Your task to perform on an android device: What's the weather like in Johannesburg? Image 0: 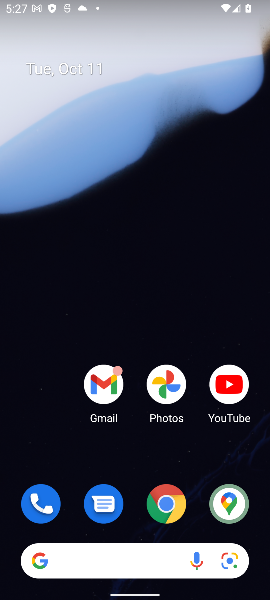
Step 0: click (113, 564)
Your task to perform on an android device: What's the weather like in Johannesburg? Image 1: 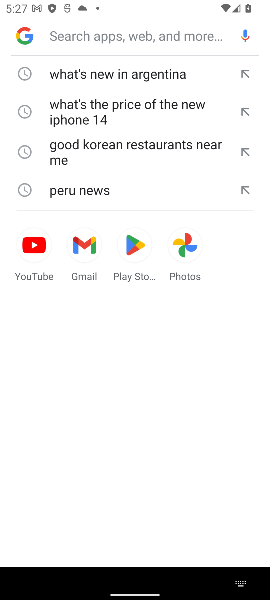
Step 1: click (68, 37)
Your task to perform on an android device: What's the weather like in Johannesburg? Image 2: 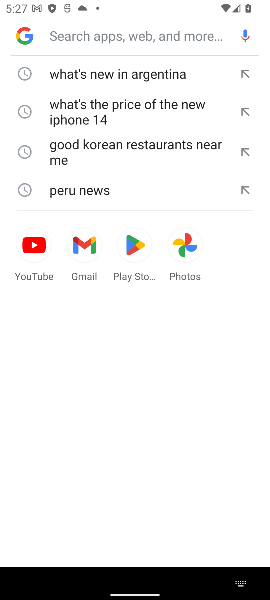
Step 2: type "What's the weather like in Johannesburg?"
Your task to perform on an android device: What's the weather like in Johannesburg? Image 3: 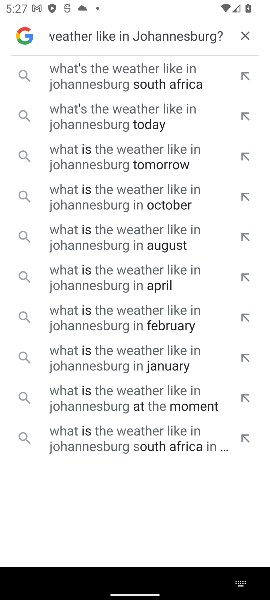
Step 3: click (87, 116)
Your task to perform on an android device: What's the weather like in Johannesburg? Image 4: 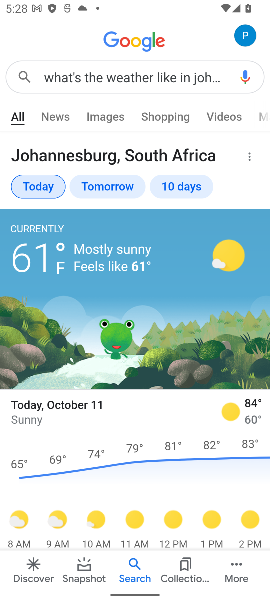
Step 4: task complete